Your task to perform on an android device: Search for good Korean restaurants Image 0: 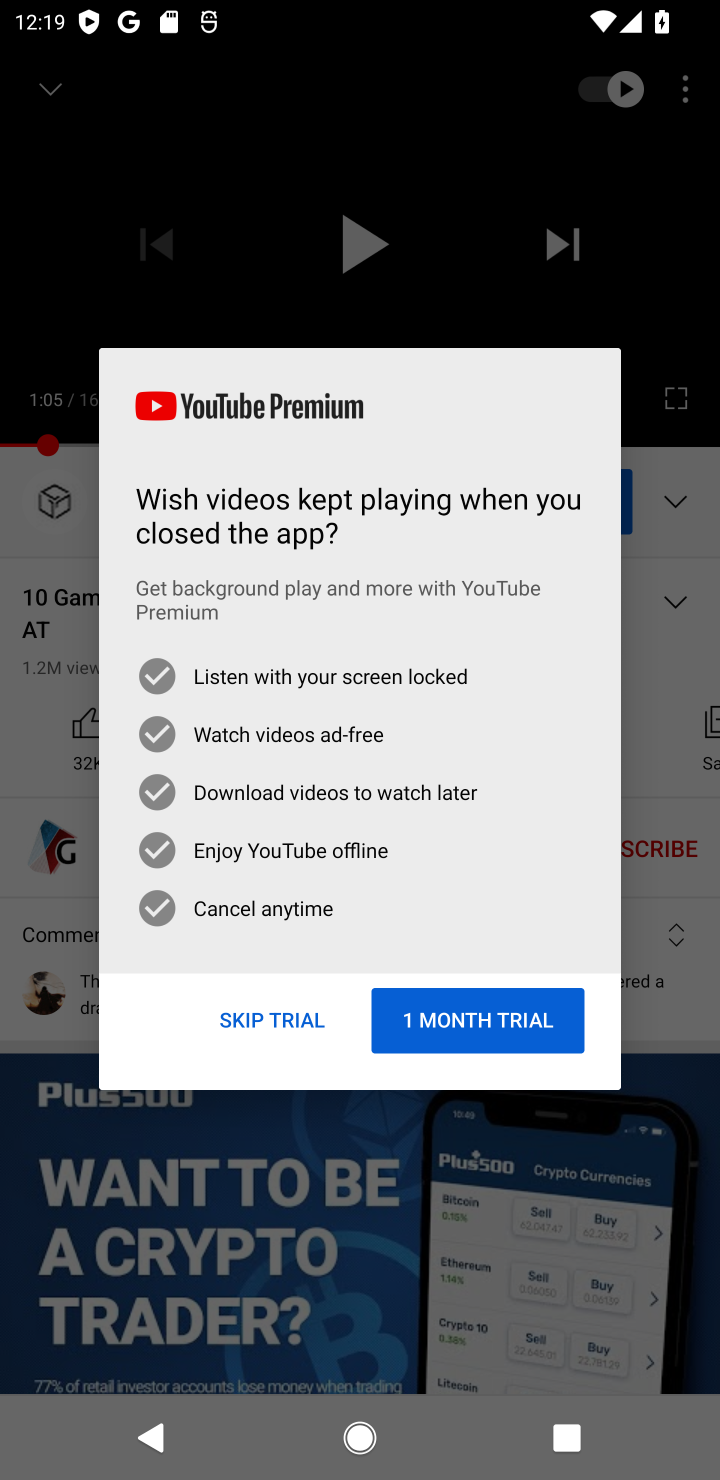
Step 0: press home button
Your task to perform on an android device: Search for good Korean restaurants Image 1: 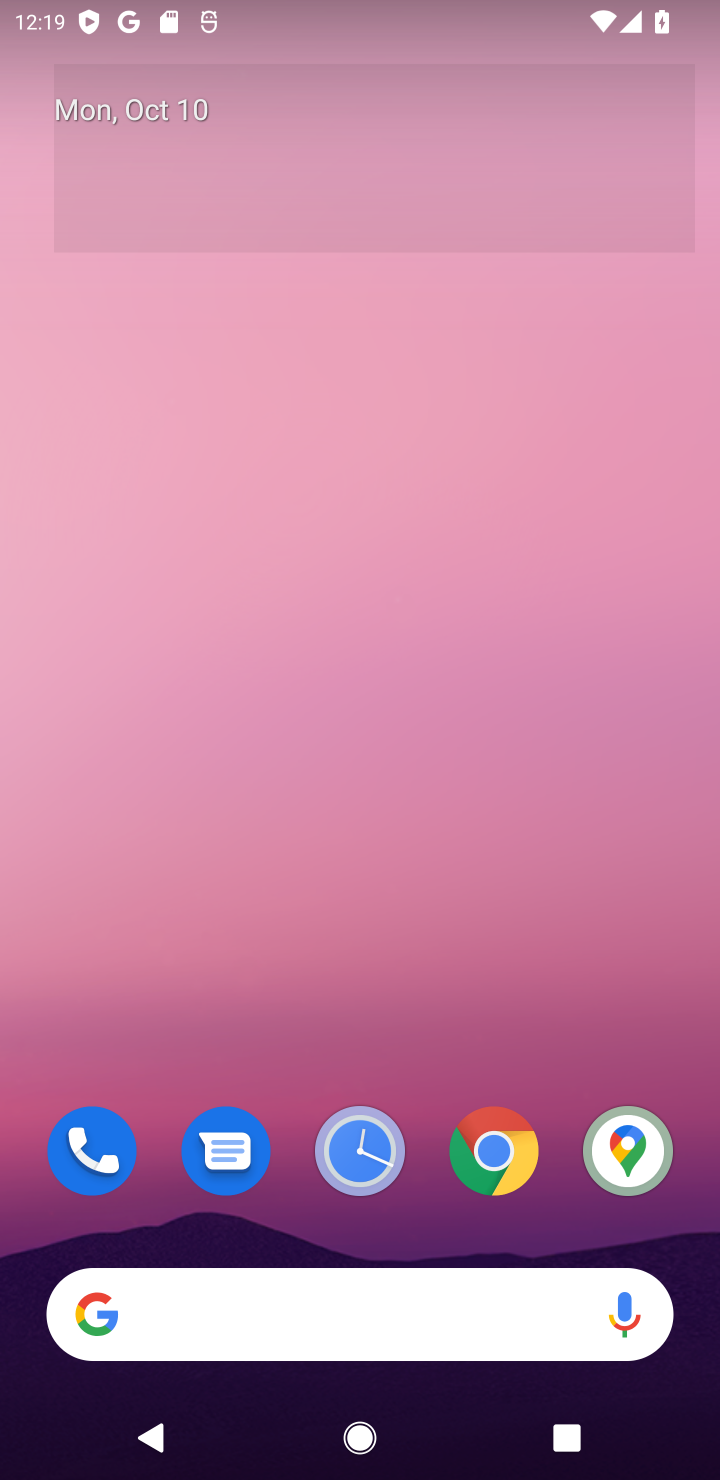
Step 1: click (407, 1279)
Your task to perform on an android device: Search for good Korean restaurants Image 2: 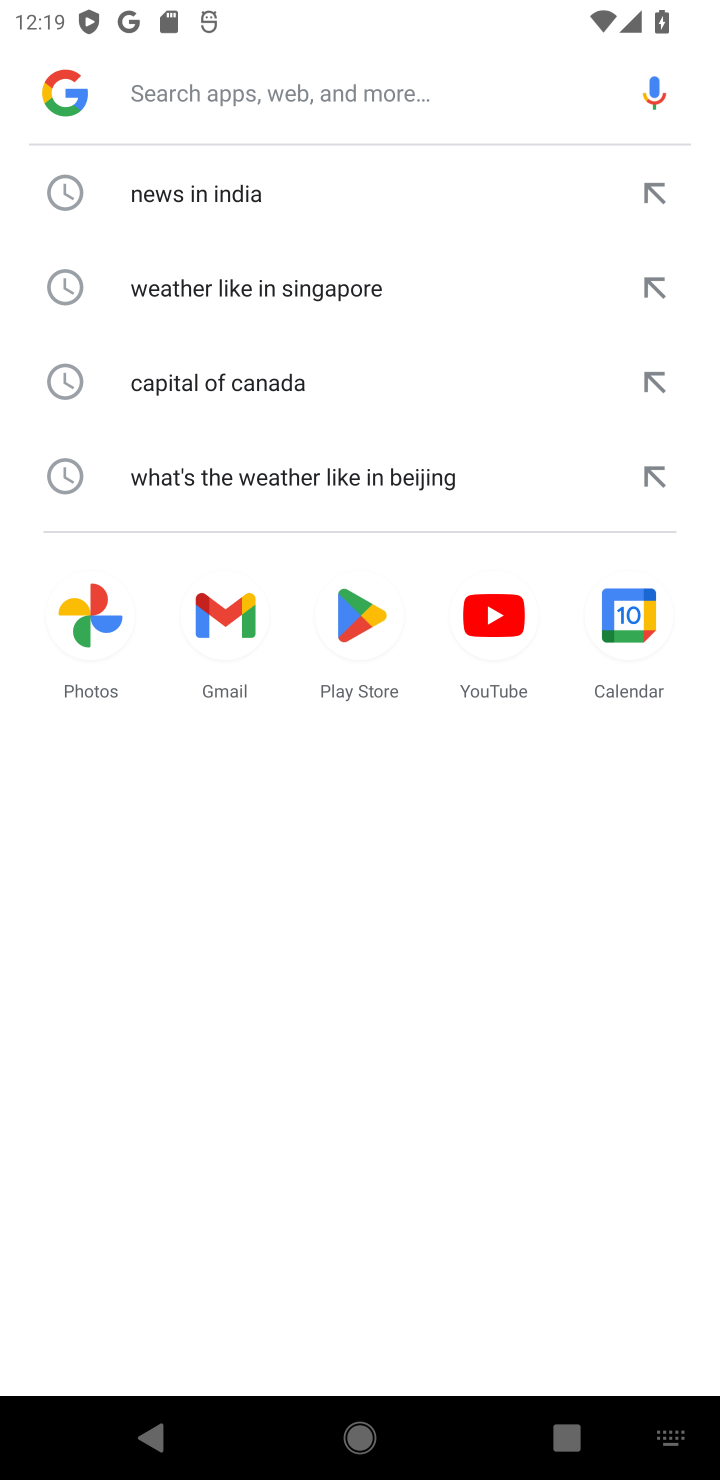
Step 2: type "good korean restaurants"
Your task to perform on an android device: Search for good Korean restaurants Image 3: 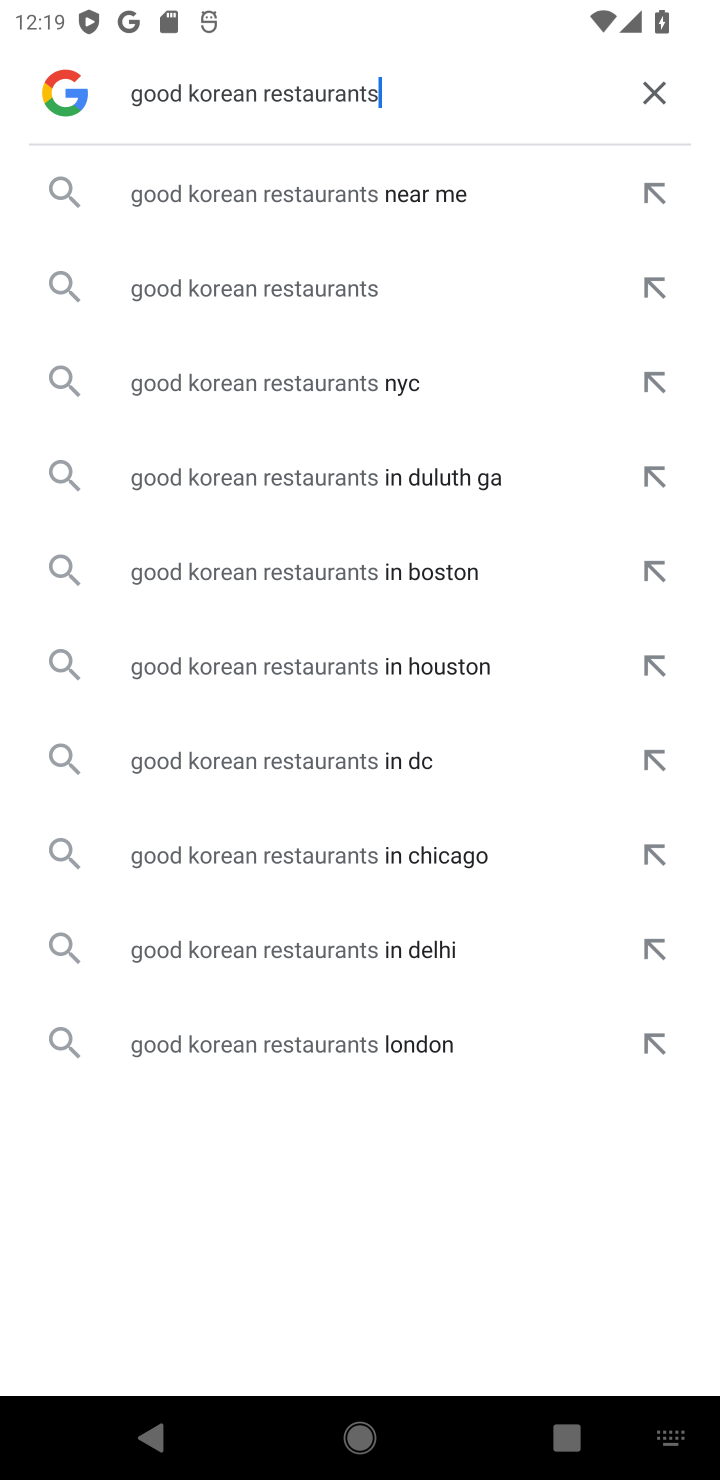
Step 3: click (256, 278)
Your task to perform on an android device: Search for good Korean restaurants Image 4: 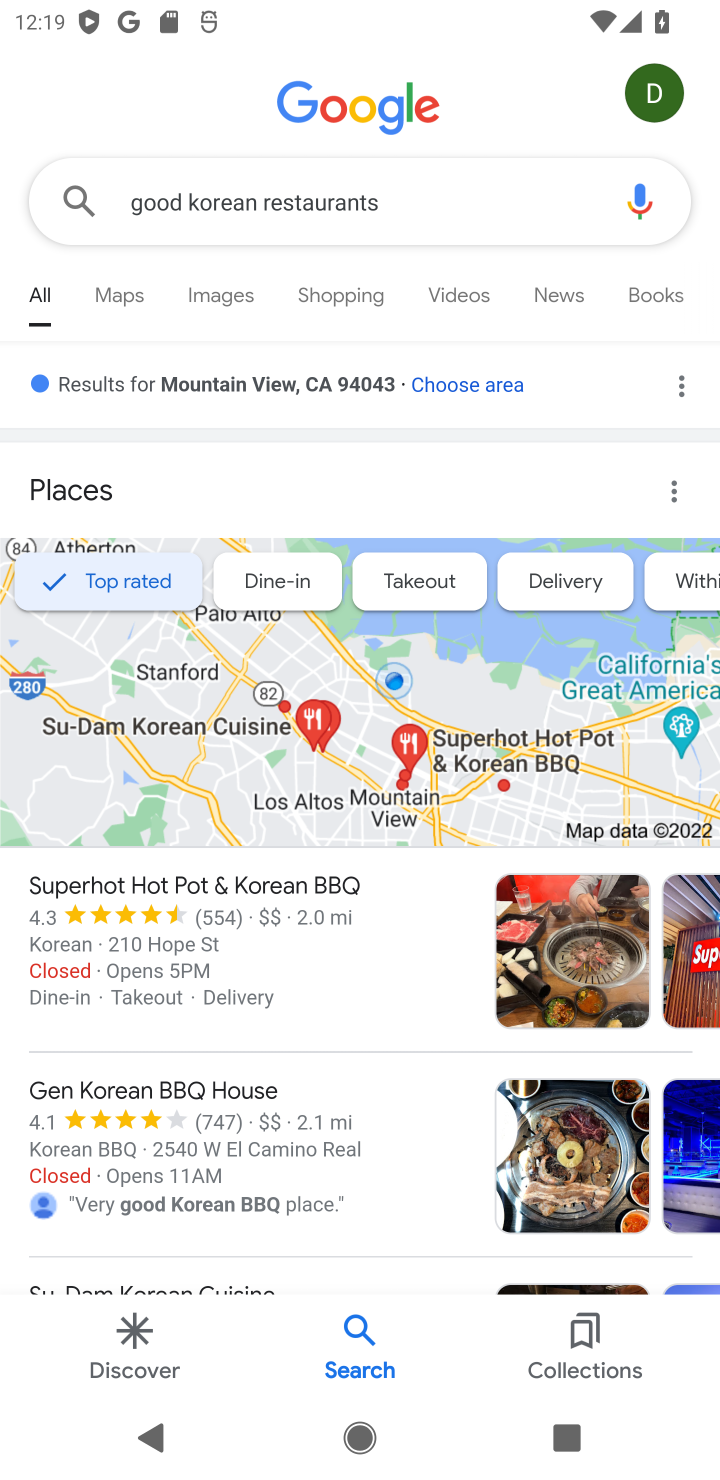
Step 4: task complete